Your task to perform on an android device: Open Chrome and go to settings Image 0: 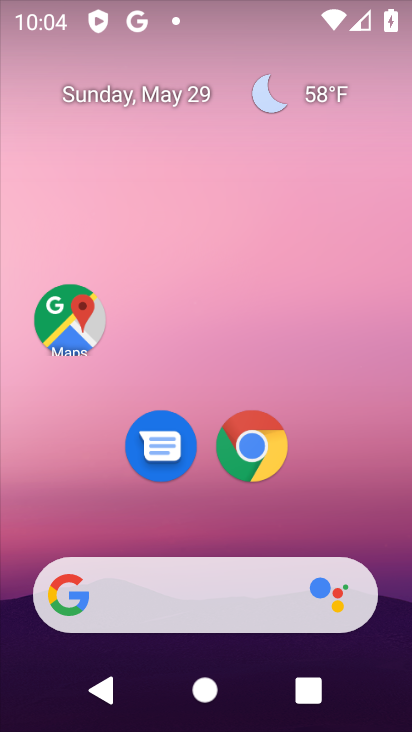
Step 0: drag from (332, 529) to (227, 17)
Your task to perform on an android device: Open Chrome and go to settings Image 1: 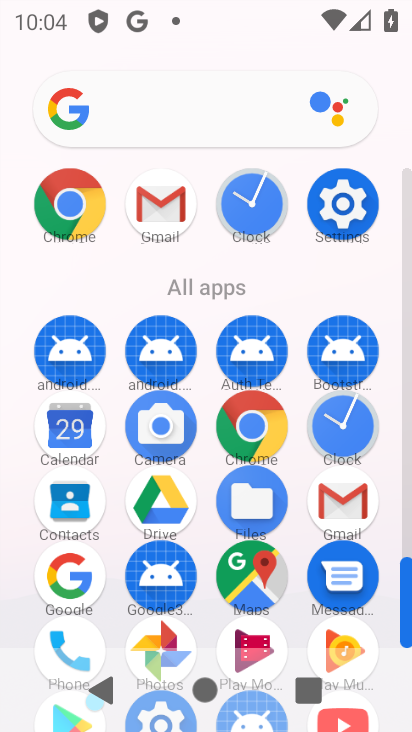
Step 1: drag from (17, 494) to (16, 262)
Your task to perform on an android device: Open Chrome and go to settings Image 2: 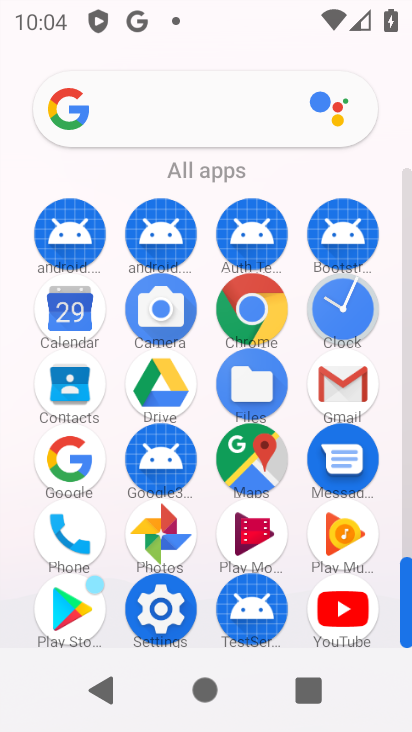
Step 2: click (254, 303)
Your task to perform on an android device: Open Chrome and go to settings Image 3: 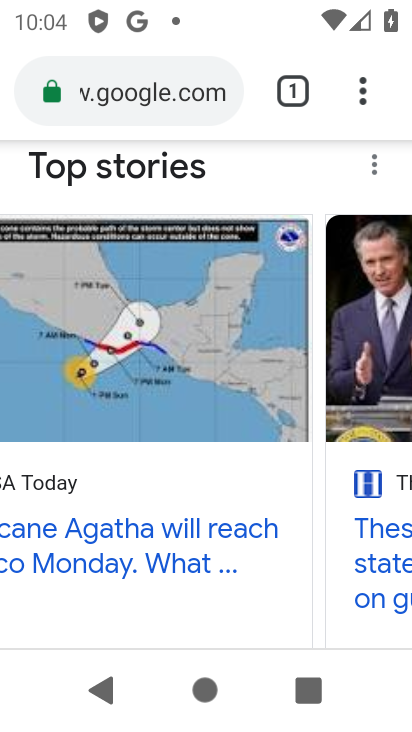
Step 3: task complete